Your task to perform on an android device: turn off notifications settings in the gmail app Image 0: 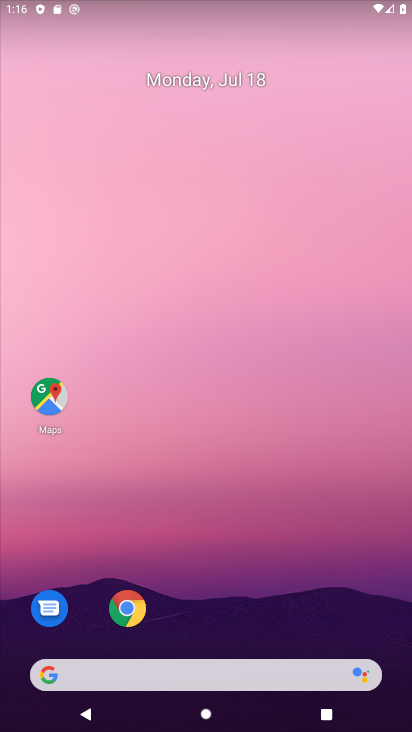
Step 0: drag from (238, 585) to (229, 99)
Your task to perform on an android device: turn off notifications settings in the gmail app Image 1: 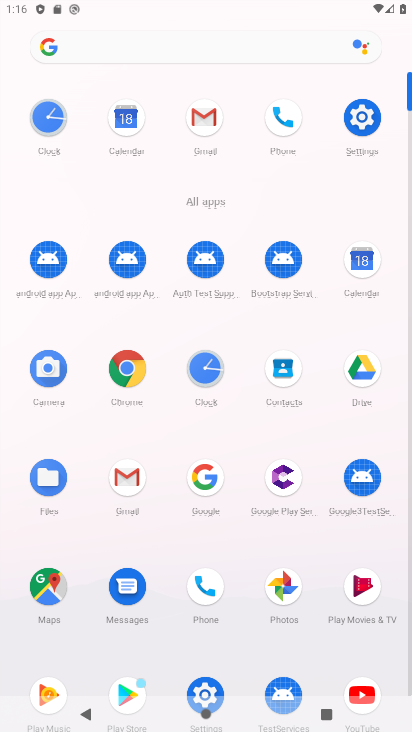
Step 1: click (125, 485)
Your task to perform on an android device: turn off notifications settings in the gmail app Image 2: 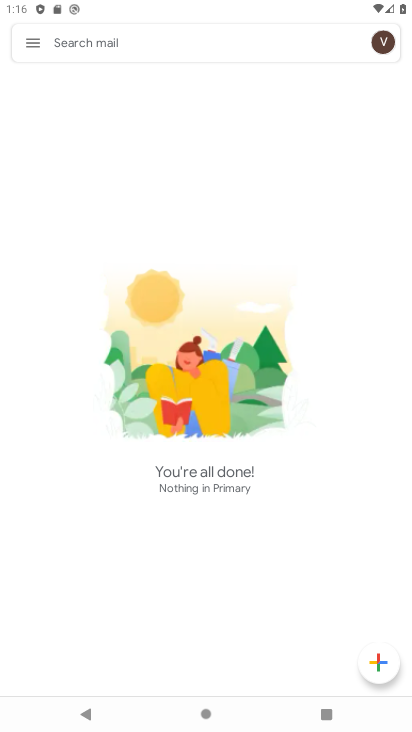
Step 2: click (28, 41)
Your task to perform on an android device: turn off notifications settings in the gmail app Image 3: 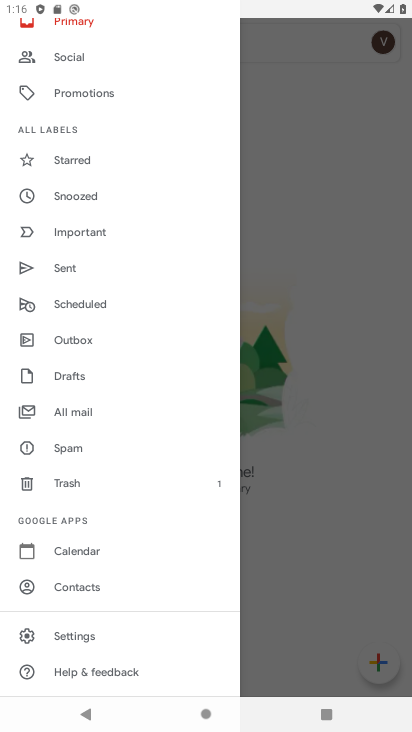
Step 3: click (88, 633)
Your task to perform on an android device: turn off notifications settings in the gmail app Image 4: 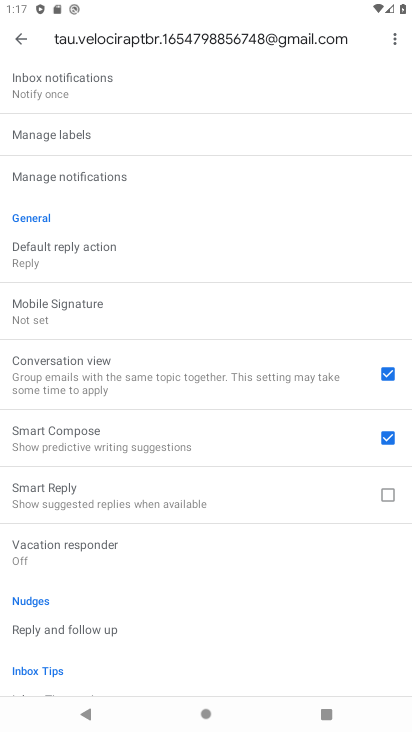
Step 4: drag from (60, 116) to (43, 483)
Your task to perform on an android device: turn off notifications settings in the gmail app Image 5: 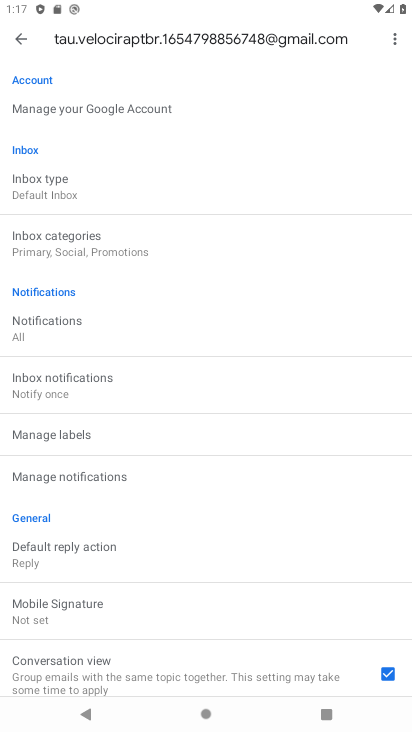
Step 5: click (51, 317)
Your task to perform on an android device: turn off notifications settings in the gmail app Image 6: 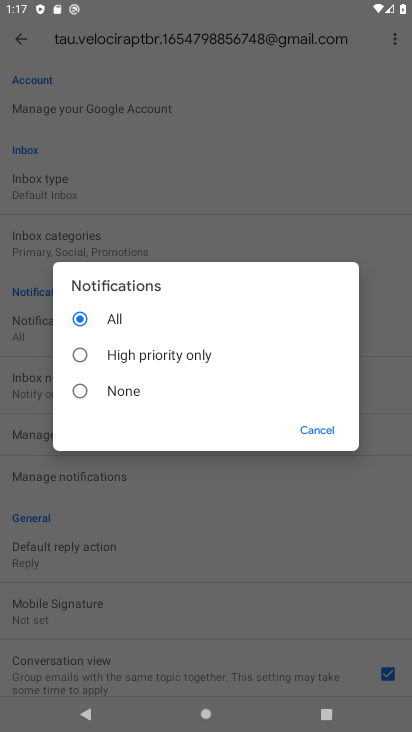
Step 6: click (80, 391)
Your task to perform on an android device: turn off notifications settings in the gmail app Image 7: 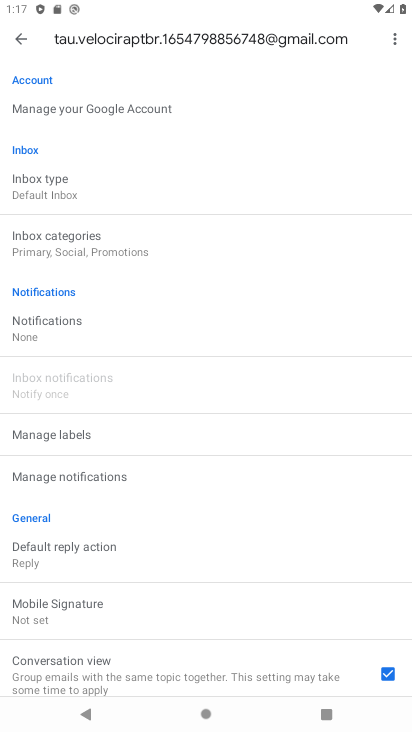
Step 7: task complete